Your task to perform on an android device: Go to Android settings Image 0: 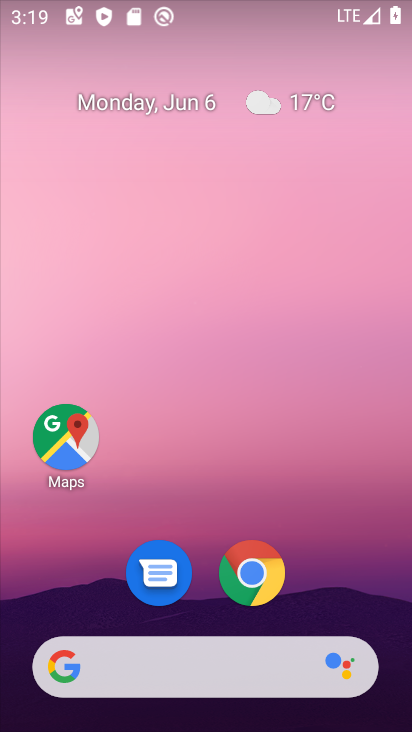
Step 0: drag from (373, 607) to (371, 288)
Your task to perform on an android device: Go to Android settings Image 1: 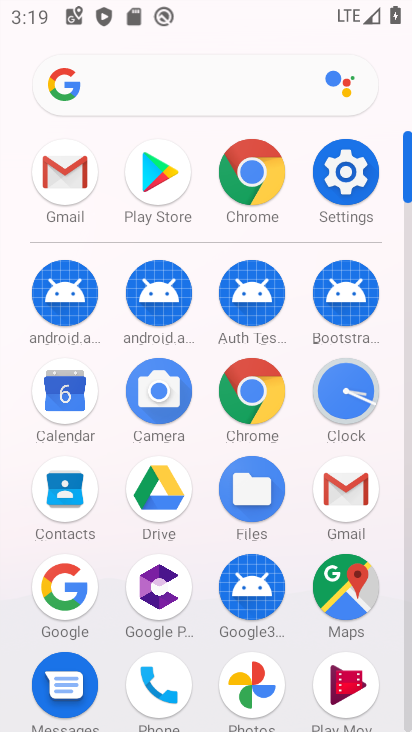
Step 1: click (357, 184)
Your task to perform on an android device: Go to Android settings Image 2: 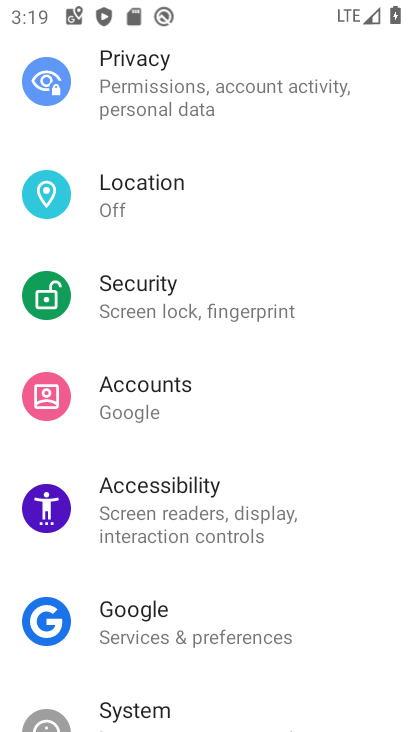
Step 2: drag from (334, 221) to (328, 329)
Your task to perform on an android device: Go to Android settings Image 3: 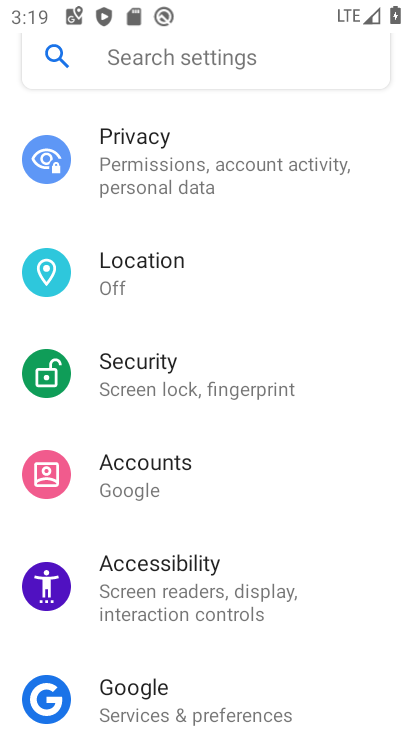
Step 3: drag from (328, 217) to (328, 334)
Your task to perform on an android device: Go to Android settings Image 4: 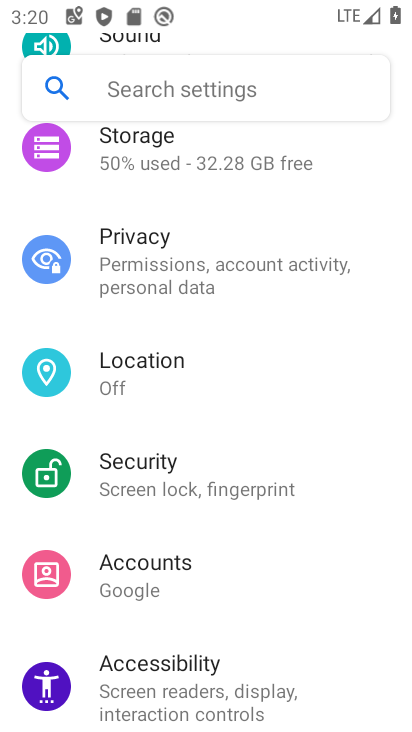
Step 4: drag from (336, 204) to (336, 327)
Your task to perform on an android device: Go to Android settings Image 5: 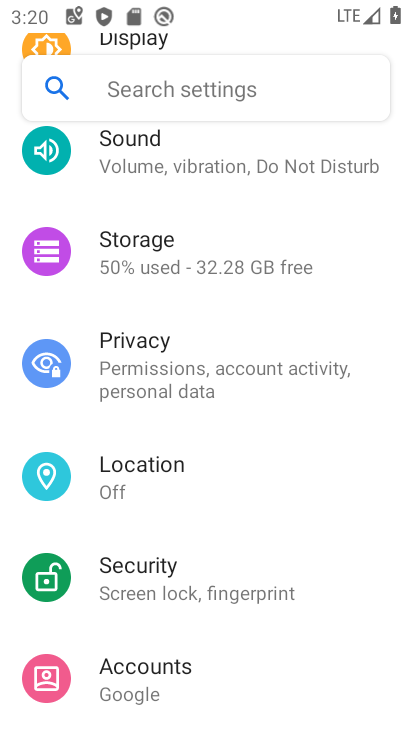
Step 5: drag from (338, 186) to (340, 328)
Your task to perform on an android device: Go to Android settings Image 6: 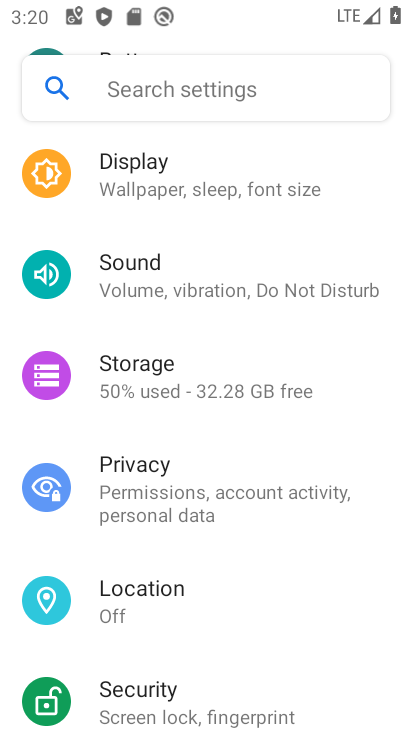
Step 6: drag from (341, 185) to (341, 316)
Your task to perform on an android device: Go to Android settings Image 7: 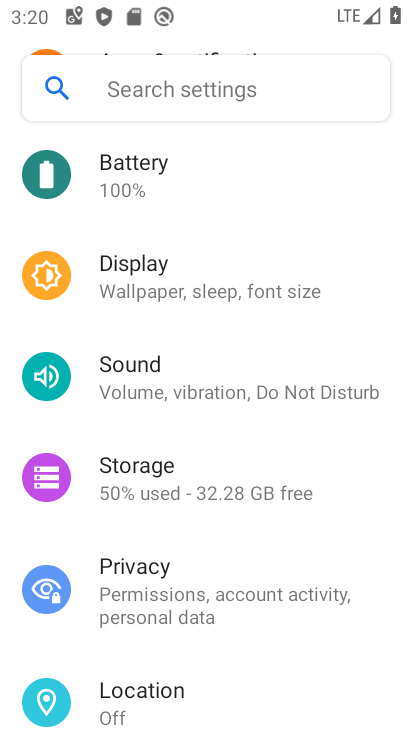
Step 7: drag from (337, 204) to (335, 326)
Your task to perform on an android device: Go to Android settings Image 8: 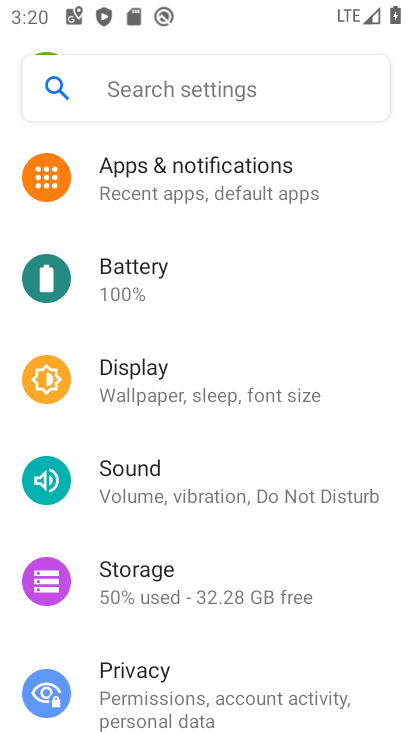
Step 8: drag from (346, 195) to (344, 344)
Your task to perform on an android device: Go to Android settings Image 9: 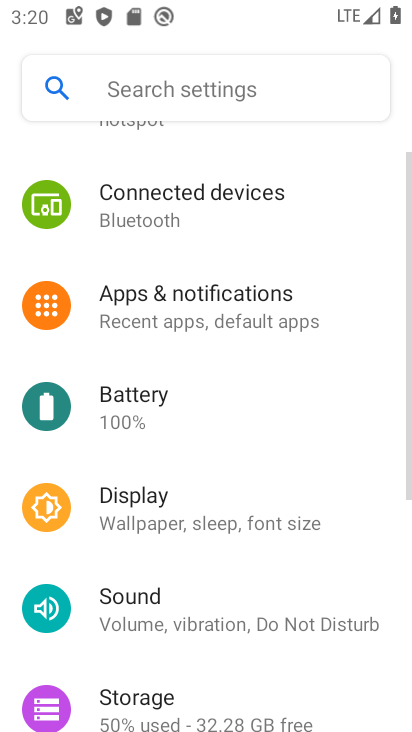
Step 9: drag from (350, 388) to (352, 298)
Your task to perform on an android device: Go to Android settings Image 10: 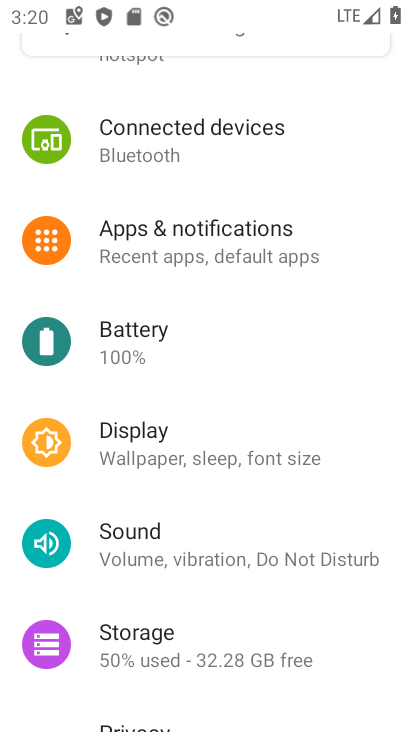
Step 10: drag from (346, 391) to (345, 311)
Your task to perform on an android device: Go to Android settings Image 11: 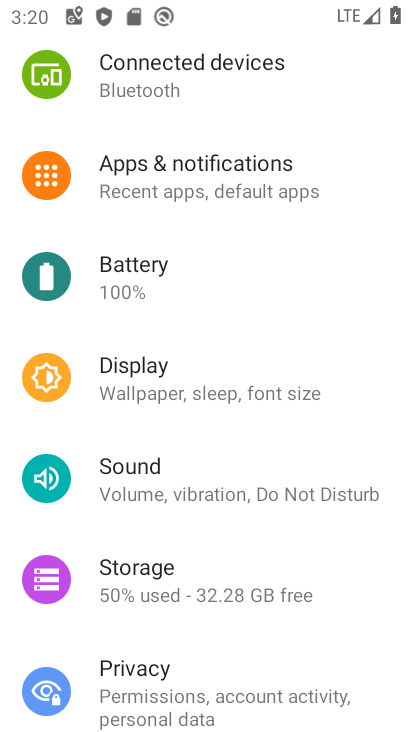
Step 11: drag from (333, 404) to (336, 319)
Your task to perform on an android device: Go to Android settings Image 12: 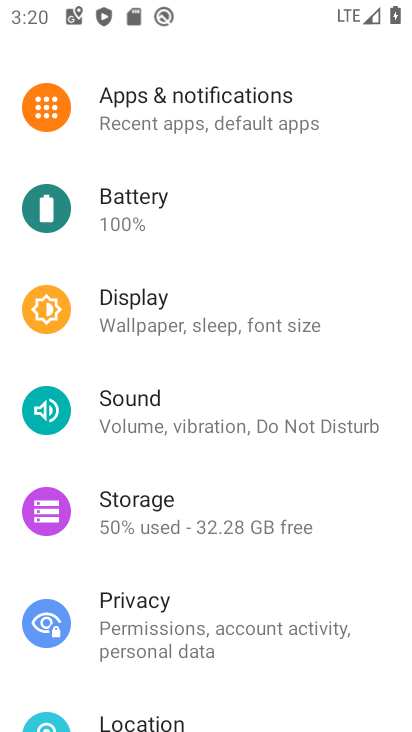
Step 12: drag from (334, 412) to (342, 339)
Your task to perform on an android device: Go to Android settings Image 13: 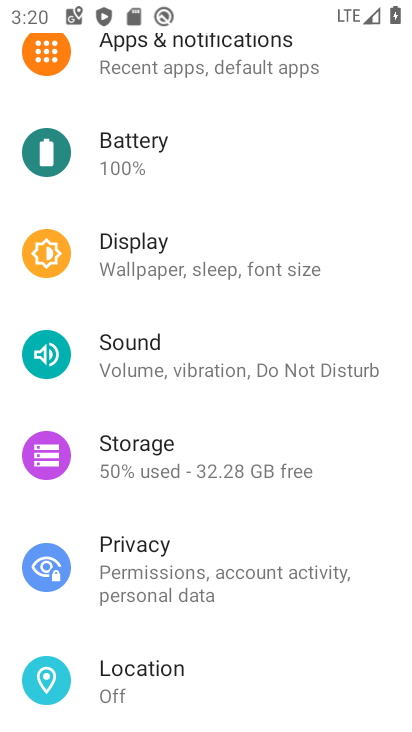
Step 13: drag from (343, 434) to (352, 354)
Your task to perform on an android device: Go to Android settings Image 14: 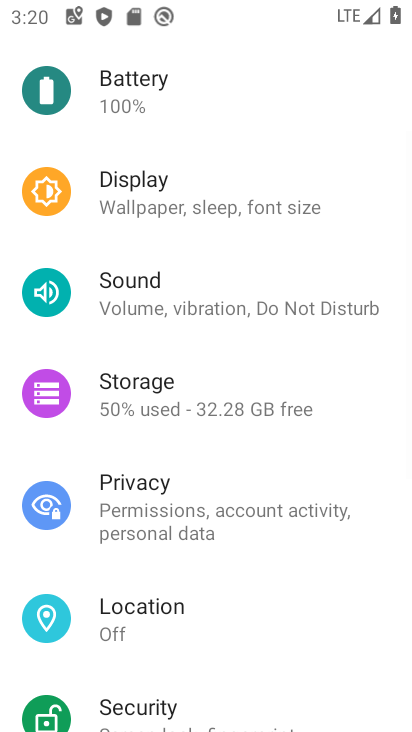
Step 14: drag from (353, 462) to (349, 368)
Your task to perform on an android device: Go to Android settings Image 15: 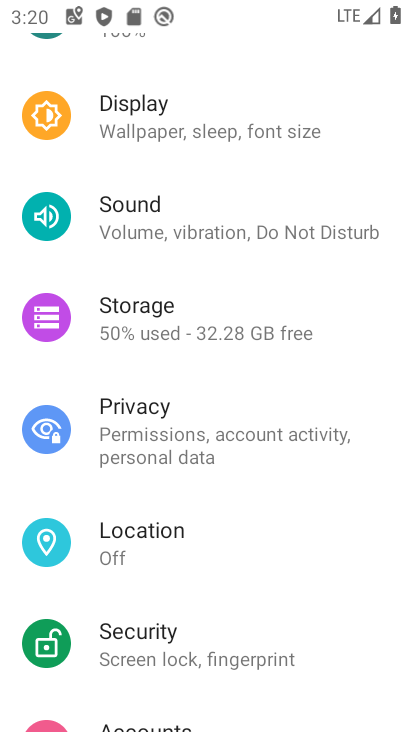
Step 15: drag from (351, 554) to (359, 392)
Your task to perform on an android device: Go to Android settings Image 16: 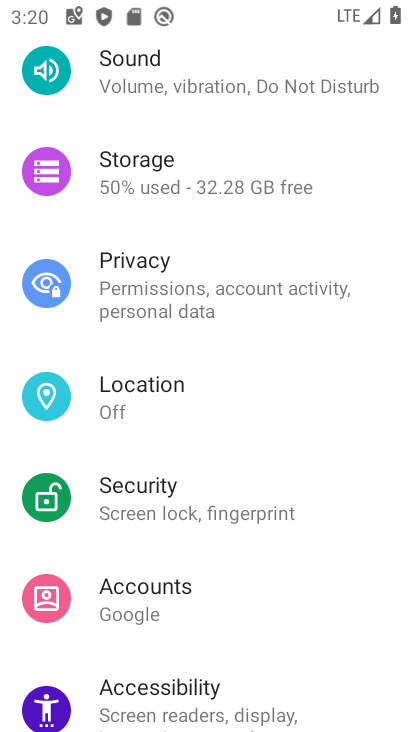
Step 16: drag from (336, 498) to (335, 387)
Your task to perform on an android device: Go to Android settings Image 17: 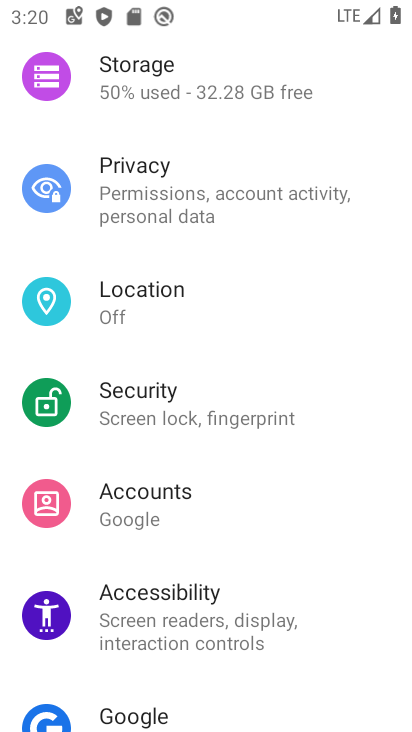
Step 17: drag from (320, 474) to (319, 286)
Your task to perform on an android device: Go to Android settings Image 18: 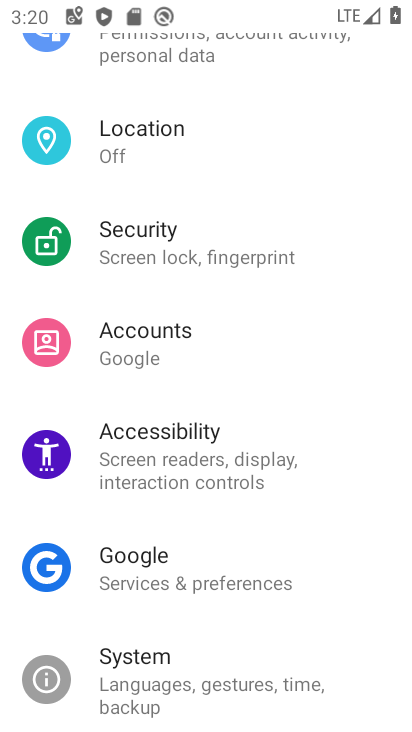
Step 18: drag from (335, 466) to (333, 318)
Your task to perform on an android device: Go to Android settings Image 19: 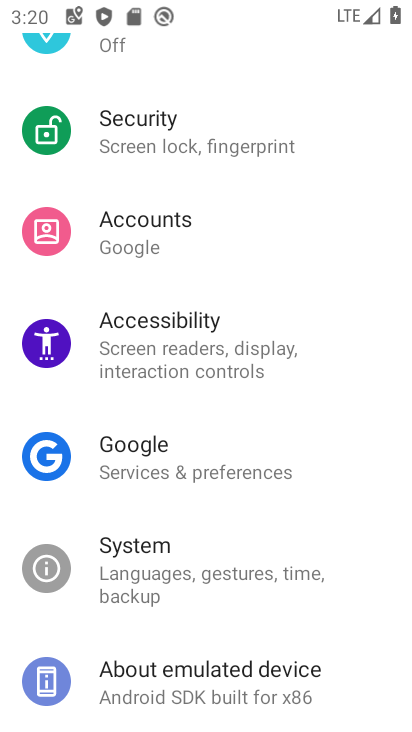
Step 19: drag from (361, 522) to (378, 390)
Your task to perform on an android device: Go to Android settings Image 20: 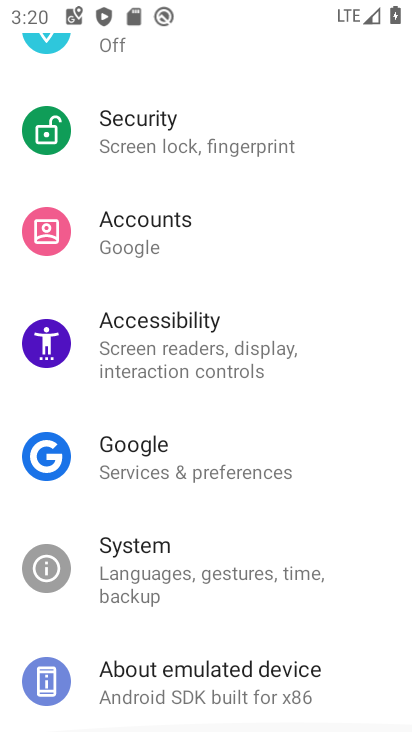
Step 20: click (292, 579)
Your task to perform on an android device: Go to Android settings Image 21: 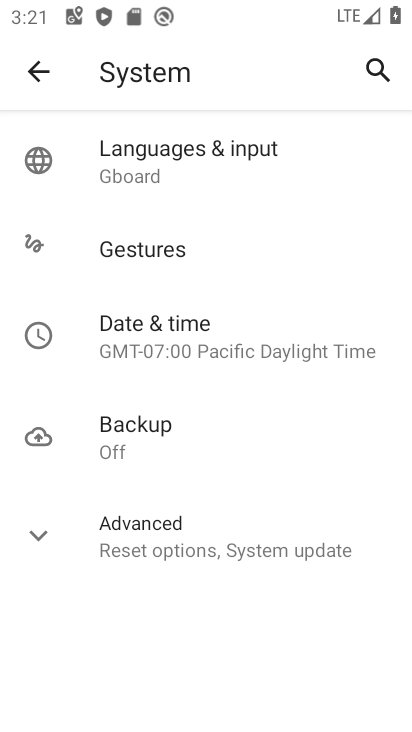
Step 21: click (251, 549)
Your task to perform on an android device: Go to Android settings Image 22: 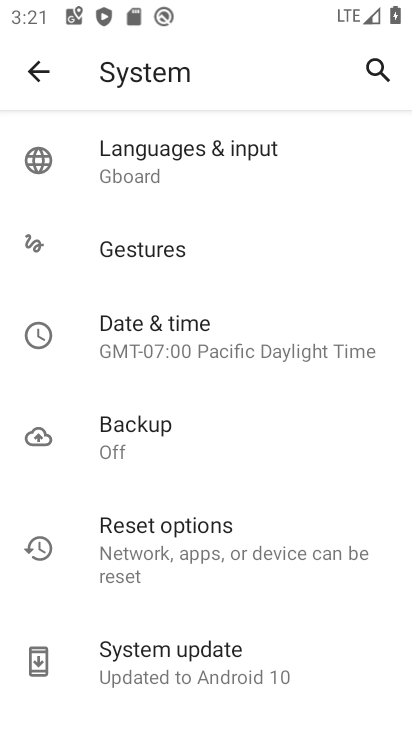
Step 22: task complete